Your task to perform on an android device: change the clock display to analog Image 0: 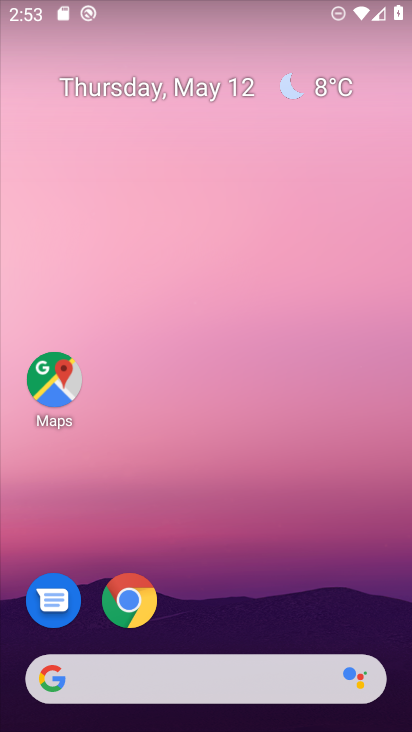
Step 0: drag from (247, 724) to (247, 109)
Your task to perform on an android device: change the clock display to analog Image 1: 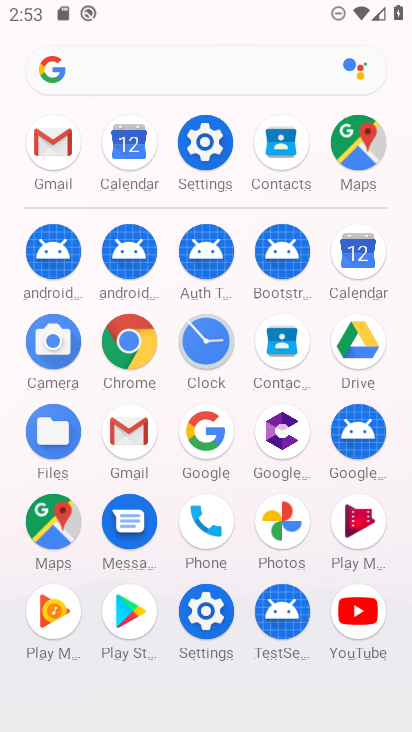
Step 1: click (200, 343)
Your task to perform on an android device: change the clock display to analog Image 2: 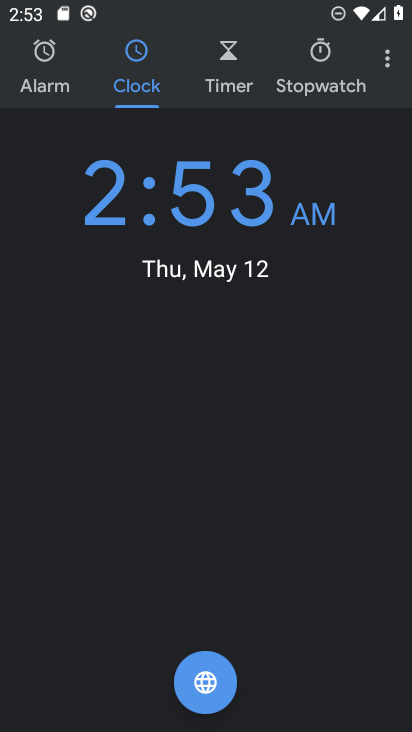
Step 2: click (389, 61)
Your task to perform on an android device: change the clock display to analog Image 3: 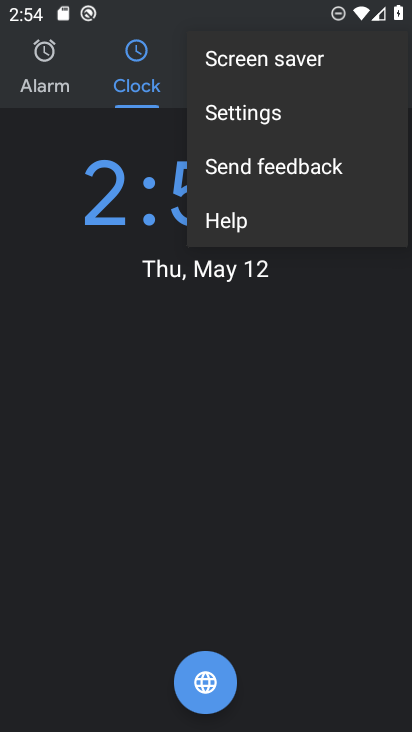
Step 3: click (264, 112)
Your task to perform on an android device: change the clock display to analog Image 4: 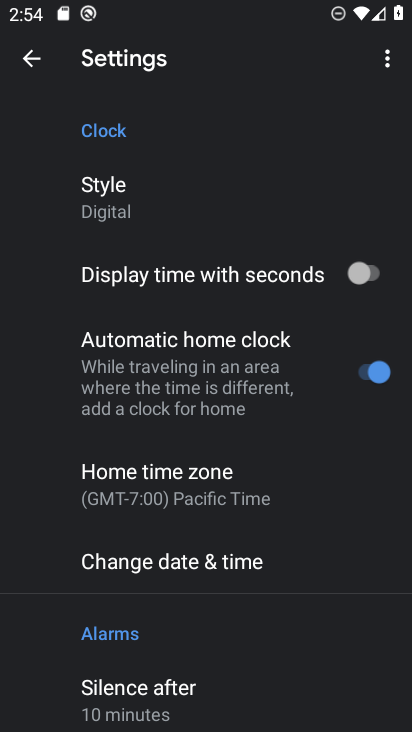
Step 4: click (106, 184)
Your task to perform on an android device: change the clock display to analog Image 5: 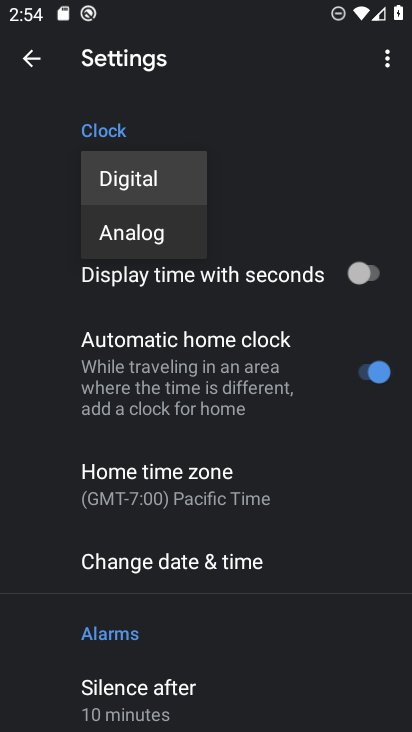
Step 5: click (132, 230)
Your task to perform on an android device: change the clock display to analog Image 6: 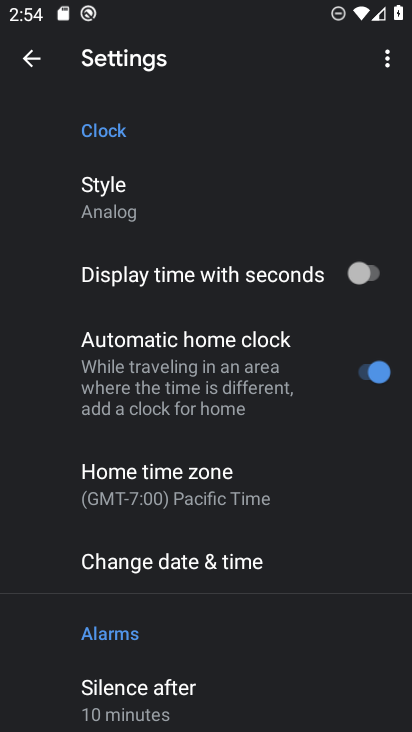
Step 6: task complete